Your task to perform on an android device: Go to wifi settings Image 0: 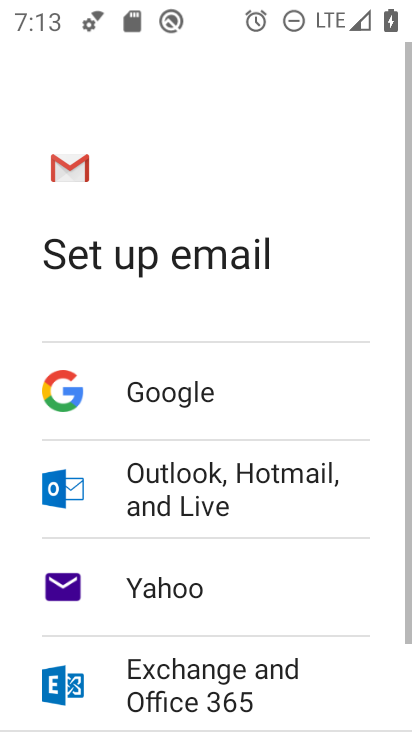
Step 0: press home button
Your task to perform on an android device: Go to wifi settings Image 1: 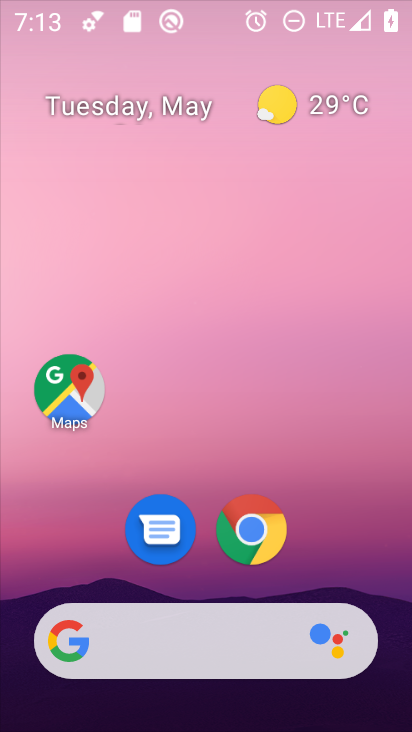
Step 1: drag from (398, 678) to (206, 37)
Your task to perform on an android device: Go to wifi settings Image 2: 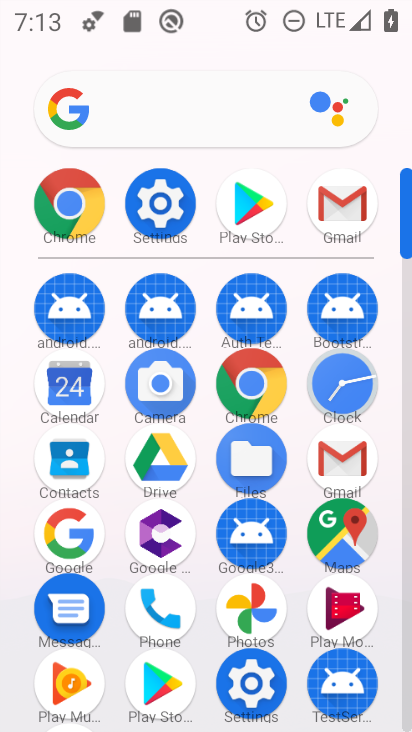
Step 2: click (165, 209)
Your task to perform on an android device: Go to wifi settings Image 3: 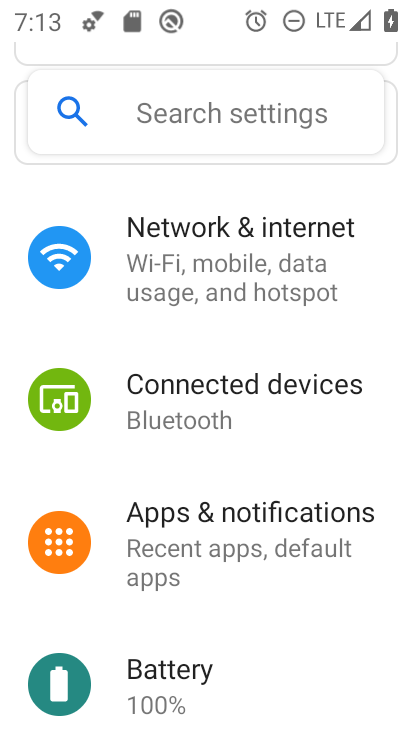
Step 3: drag from (165, 209) to (286, 605)
Your task to perform on an android device: Go to wifi settings Image 4: 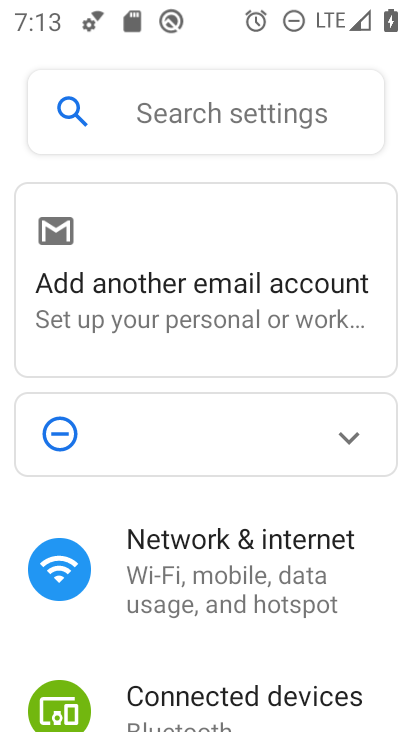
Step 4: click (256, 616)
Your task to perform on an android device: Go to wifi settings Image 5: 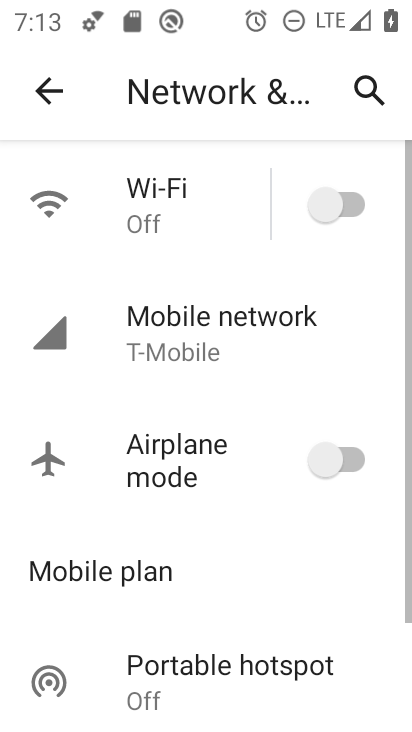
Step 5: click (163, 184)
Your task to perform on an android device: Go to wifi settings Image 6: 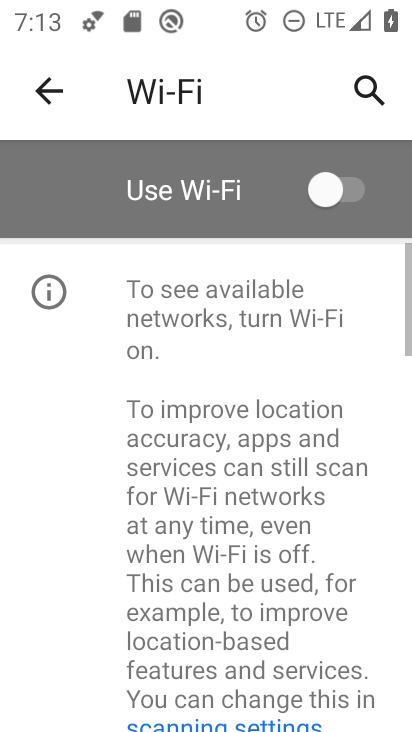
Step 6: task complete